Your task to perform on an android device: open wifi settings Image 0: 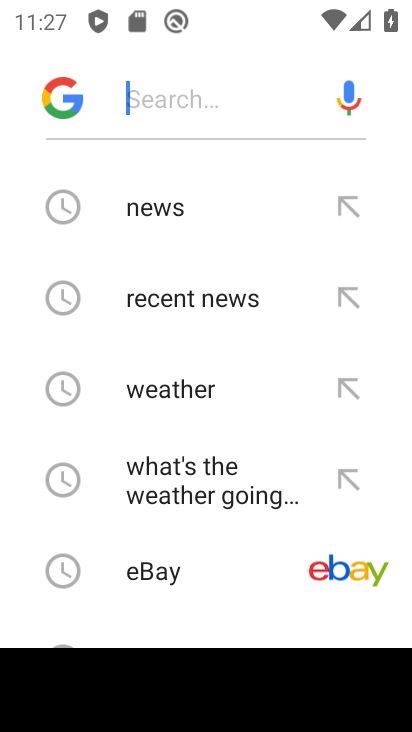
Step 0: press home button
Your task to perform on an android device: open wifi settings Image 1: 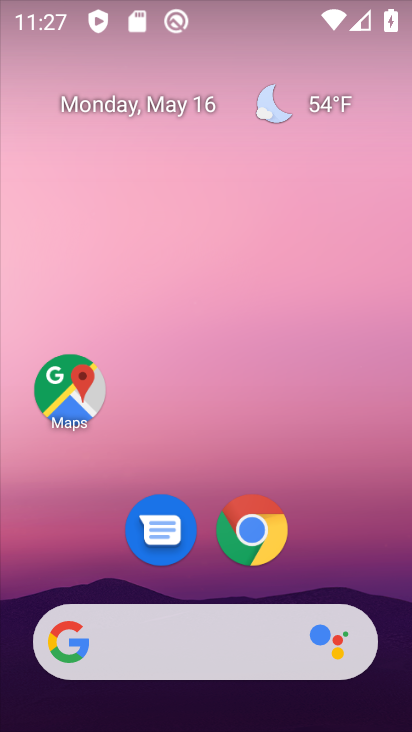
Step 1: drag from (379, 555) to (401, 100)
Your task to perform on an android device: open wifi settings Image 2: 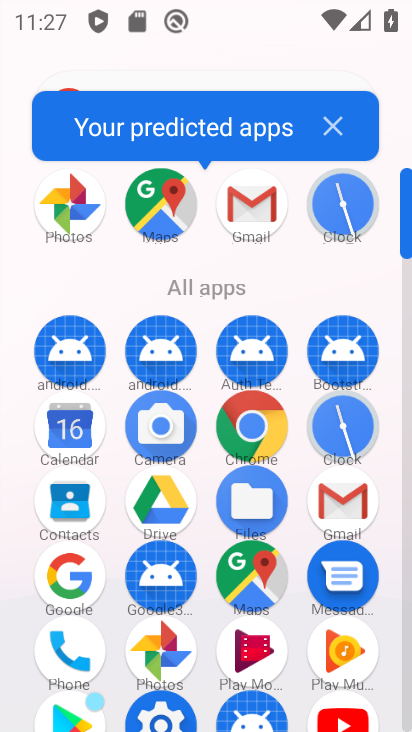
Step 2: drag from (194, 482) to (190, 319)
Your task to perform on an android device: open wifi settings Image 3: 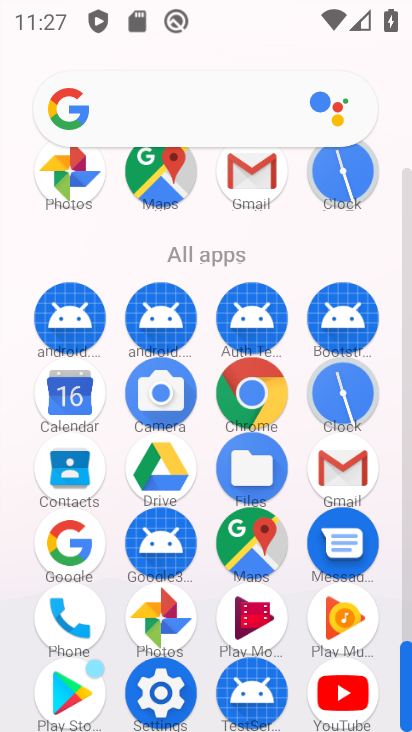
Step 3: click (170, 687)
Your task to perform on an android device: open wifi settings Image 4: 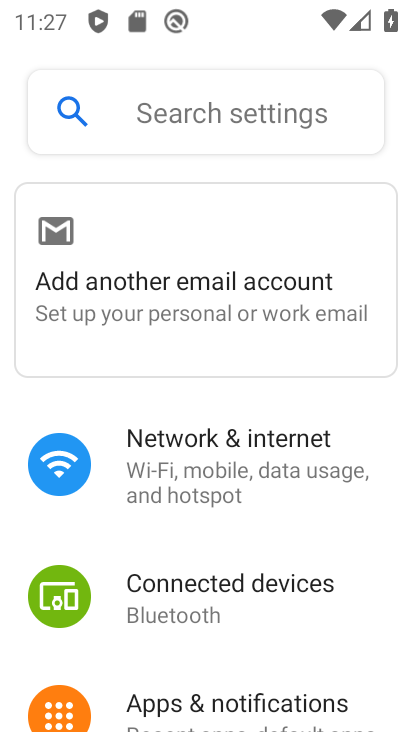
Step 4: drag from (355, 623) to (384, 443)
Your task to perform on an android device: open wifi settings Image 5: 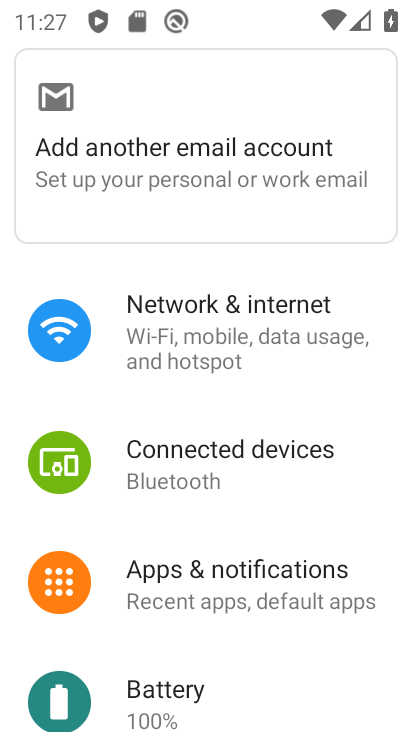
Step 5: drag from (363, 653) to (365, 459)
Your task to perform on an android device: open wifi settings Image 6: 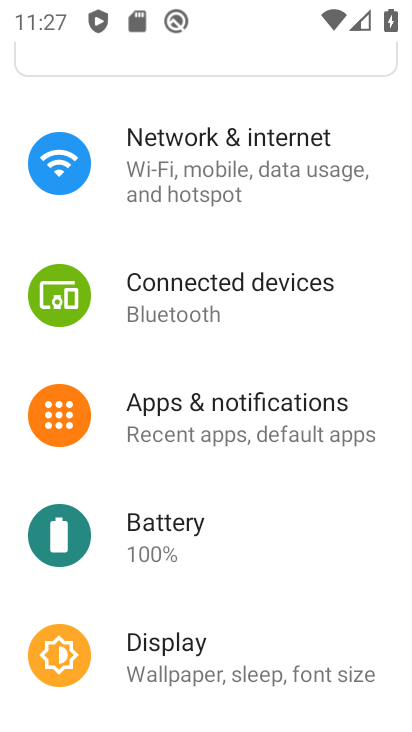
Step 6: click (320, 172)
Your task to perform on an android device: open wifi settings Image 7: 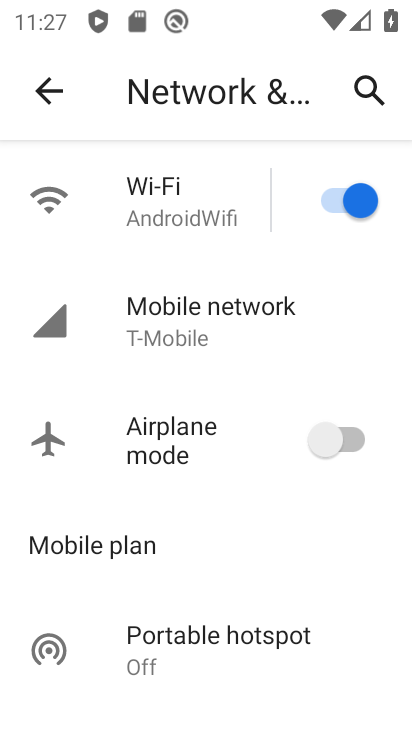
Step 7: click (190, 206)
Your task to perform on an android device: open wifi settings Image 8: 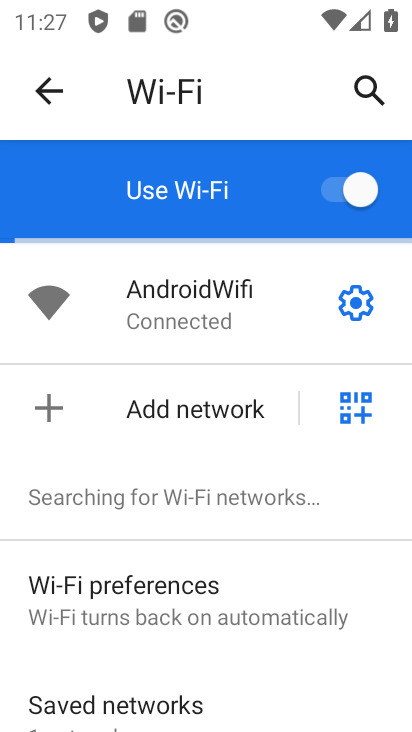
Step 8: task complete